Your task to perform on an android device: Open the Play Movies app and select the watchlist tab. Image 0: 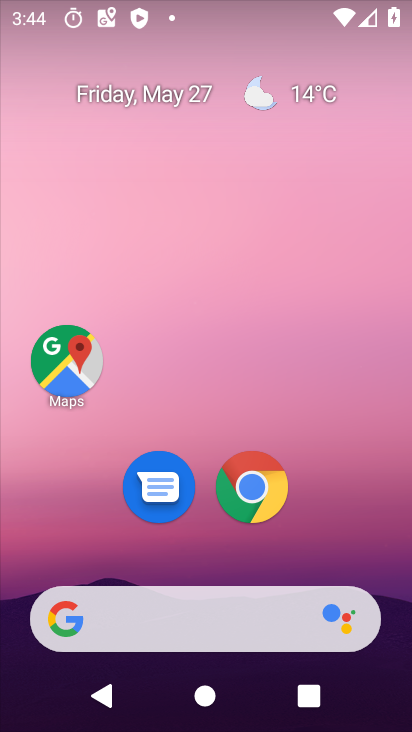
Step 0: drag from (345, 506) to (410, 8)
Your task to perform on an android device: Open the Play Movies app and select the watchlist tab. Image 1: 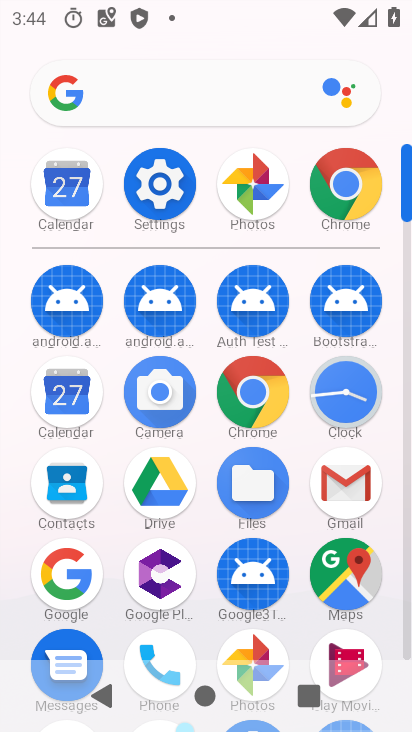
Step 1: drag from (291, 535) to (316, 204)
Your task to perform on an android device: Open the Play Movies app and select the watchlist tab. Image 2: 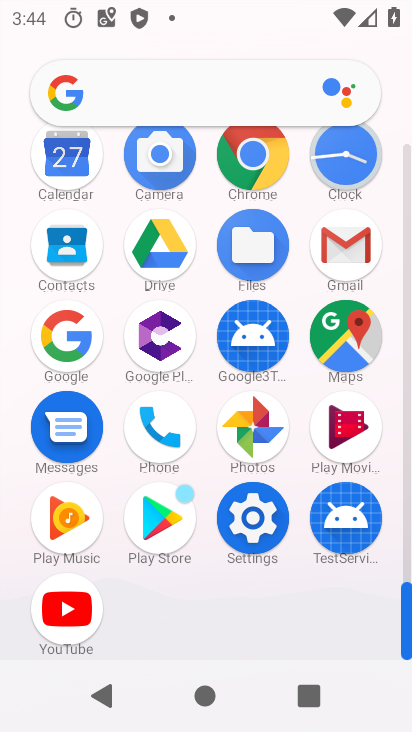
Step 2: click (338, 411)
Your task to perform on an android device: Open the Play Movies app and select the watchlist tab. Image 3: 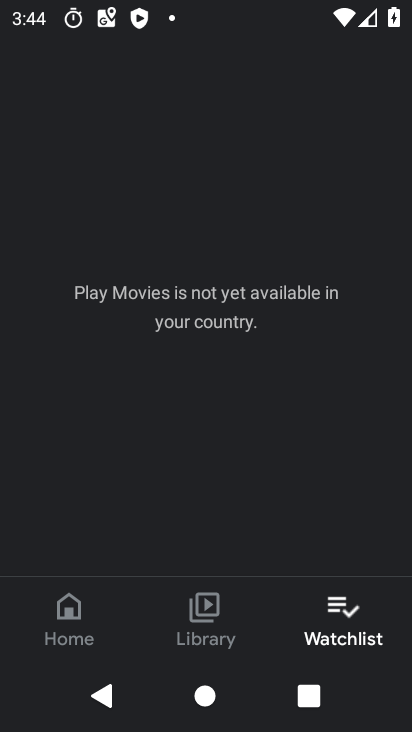
Step 3: task complete